Your task to perform on an android device: Open the web browser Image 0: 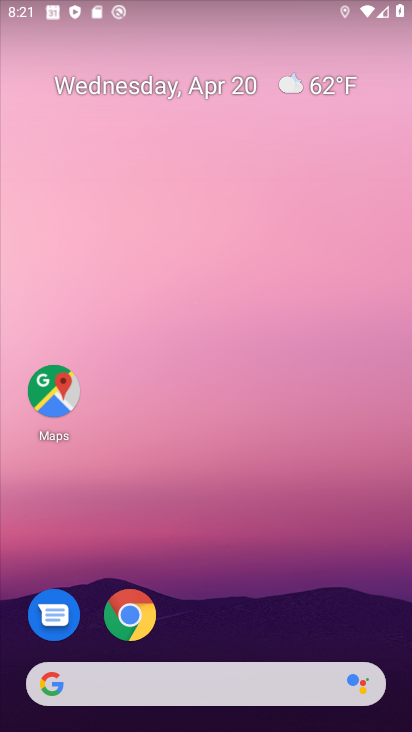
Step 0: drag from (204, 616) to (214, 180)
Your task to perform on an android device: Open the web browser Image 1: 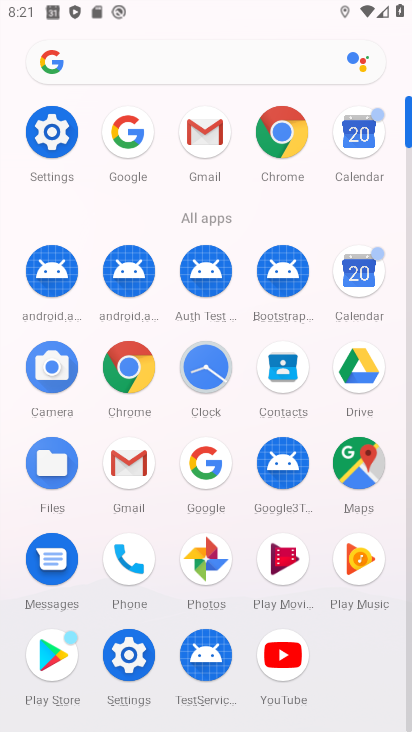
Step 1: click (128, 128)
Your task to perform on an android device: Open the web browser Image 2: 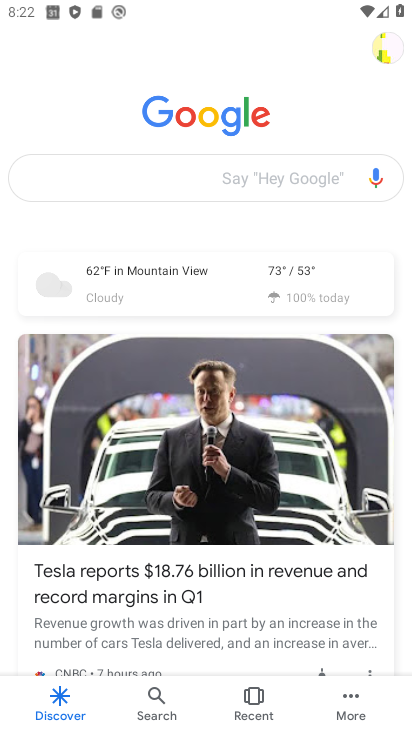
Step 2: task complete